Your task to perform on an android device: stop showing notifications on the lock screen Image 0: 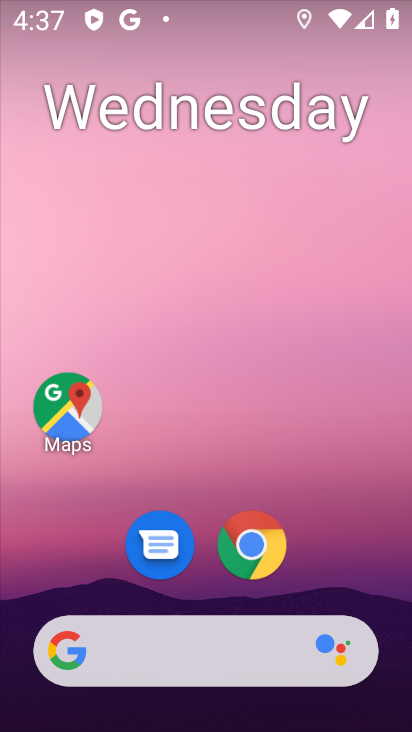
Step 0: drag from (191, 619) to (375, 24)
Your task to perform on an android device: stop showing notifications on the lock screen Image 1: 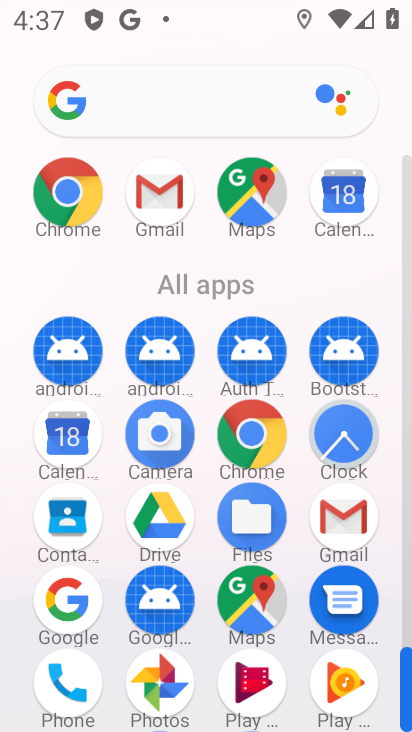
Step 1: drag from (200, 562) to (129, 44)
Your task to perform on an android device: stop showing notifications on the lock screen Image 2: 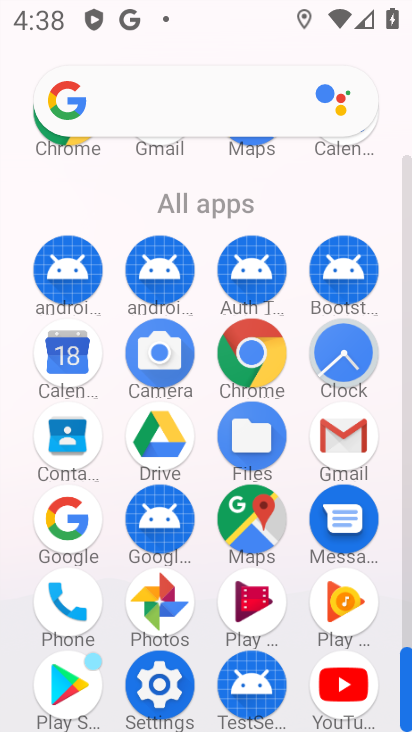
Step 2: click (164, 687)
Your task to perform on an android device: stop showing notifications on the lock screen Image 3: 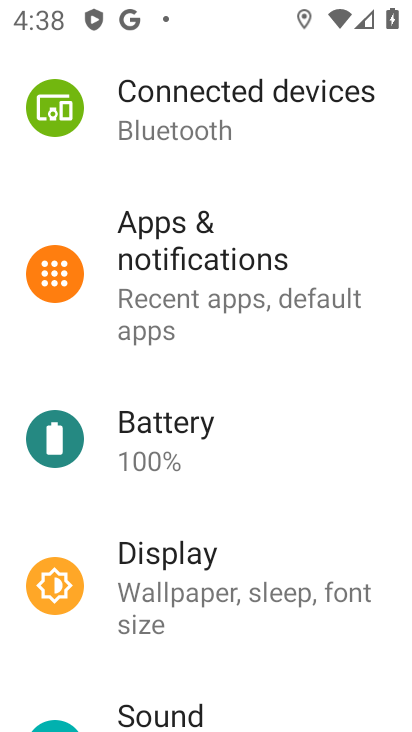
Step 3: drag from (170, 676) to (160, 531)
Your task to perform on an android device: stop showing notifications on the lock screen Image 4: 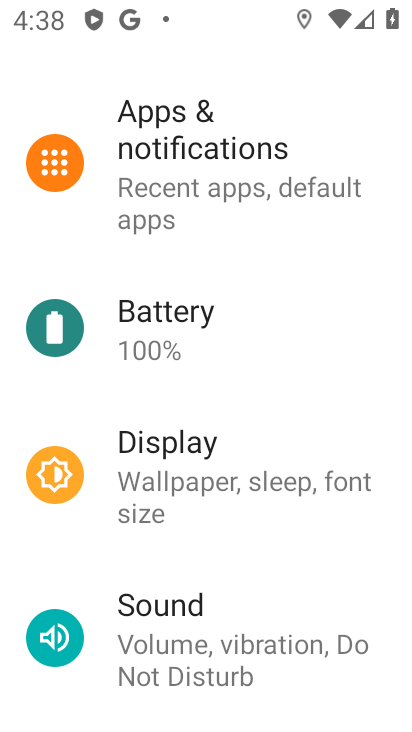
Step 4: drag from (185, 585) to (126, 214)
Your task to perform on an android device: stop showing notifications on the lock screen Image 5: 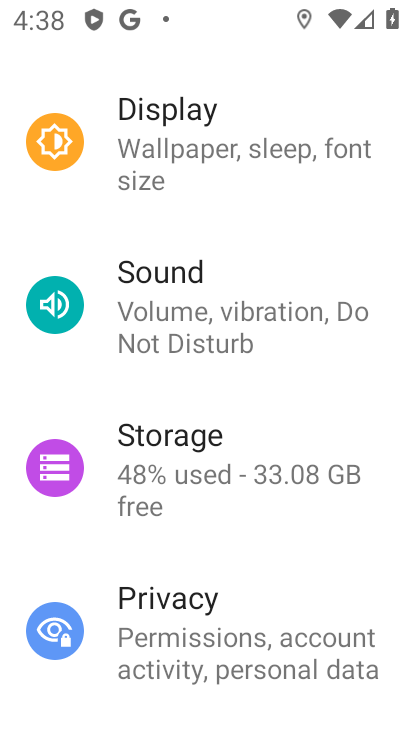
Step 5: drag from (156, 192) to (163, 731)
Your task to perform on an android device: stop showing notifications on the lock screen Image 6: 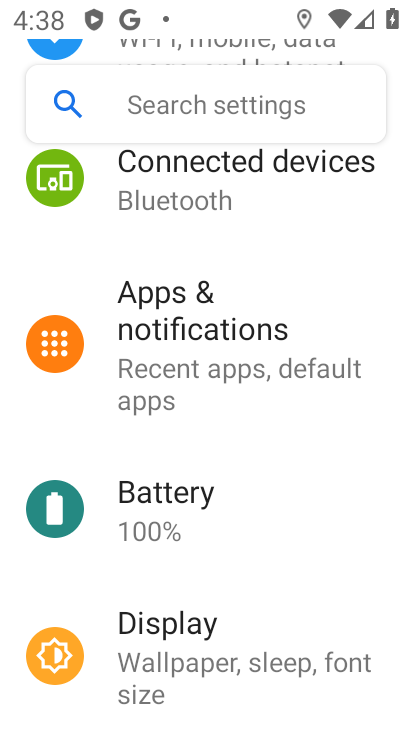
Step 6: drag from (204, 225) to (222, 639)
Your task to perform on an android device: stop showing notifications on the lock screen Image 7: 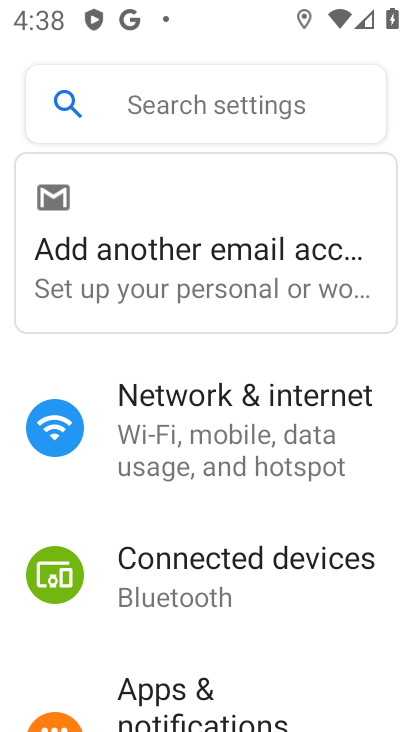
Step 7: drag from (248, 434) to (247, 76)
Your task to perform on an android device: stop showing notifications on the lock screen Image 8: 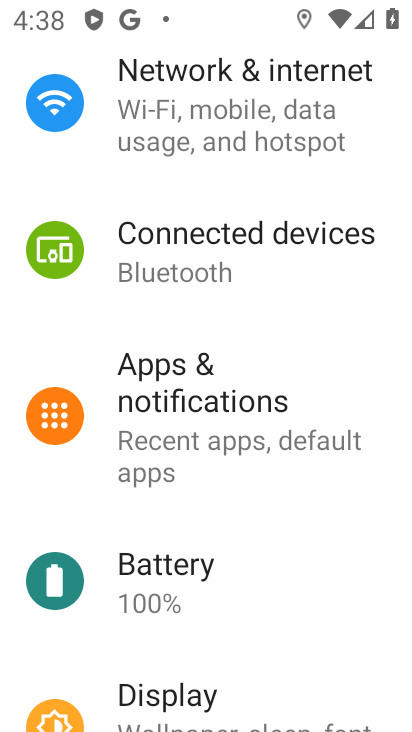
Step 8: click (175, 387)
Your task to perform on an android device: stop showing notifications on the lock screen Image 9: 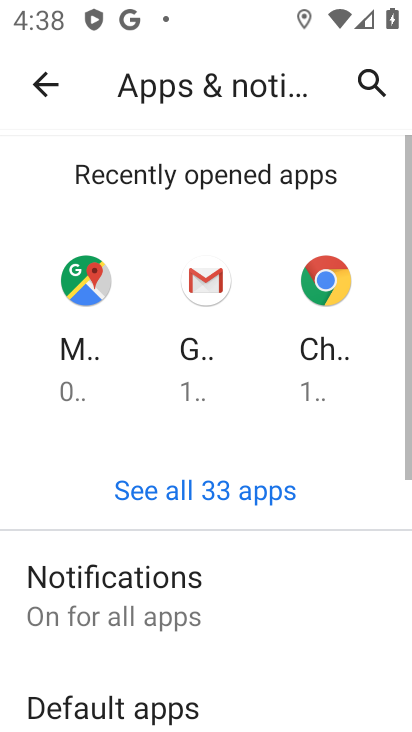
Step 9: click (173, 567)
Your task to perform on an android device: stop showing notifications on the lock screen Image 10: 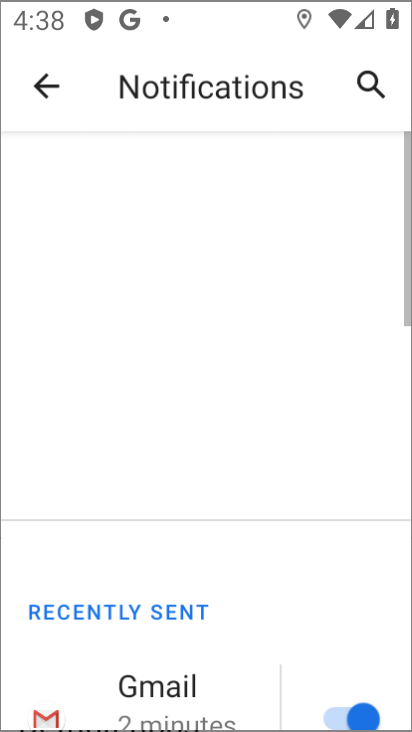
Step 10: drag from (173, 567) to (143, 76)
Your task to perform on an android device: stop showing notifications on the lock screen Image 11: 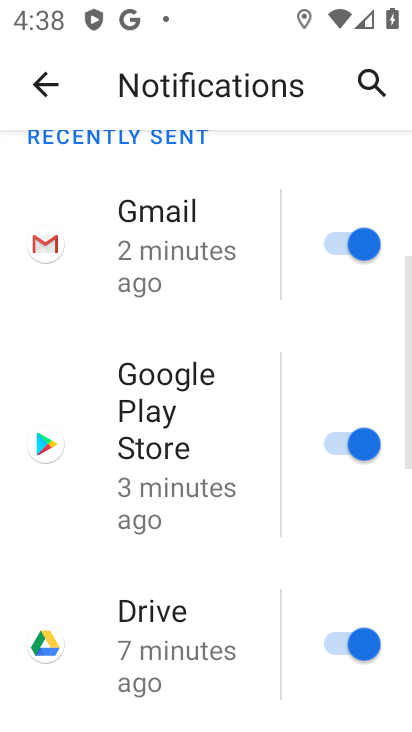
Step 11: drag from (239, 564) to (196, 92)
Your task to perform on an android device: stop showing notifications on the lock screen Image 12: 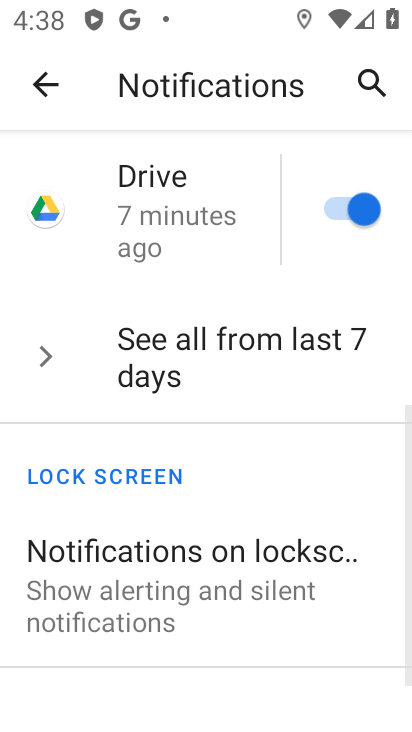
Step 12: click (240, 597)
Your task to perform on an android device: stop showing notifications on the lock screen Image 13: 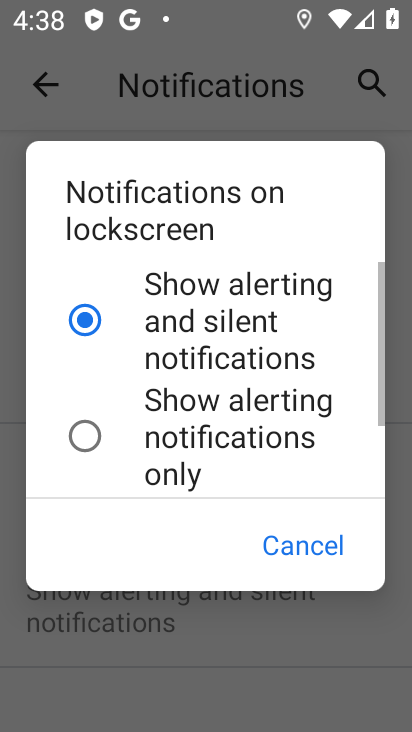
Step 13: click (175, 450)
Your task to perform on an android device: stop showing notifications on the lock screen Image 14: 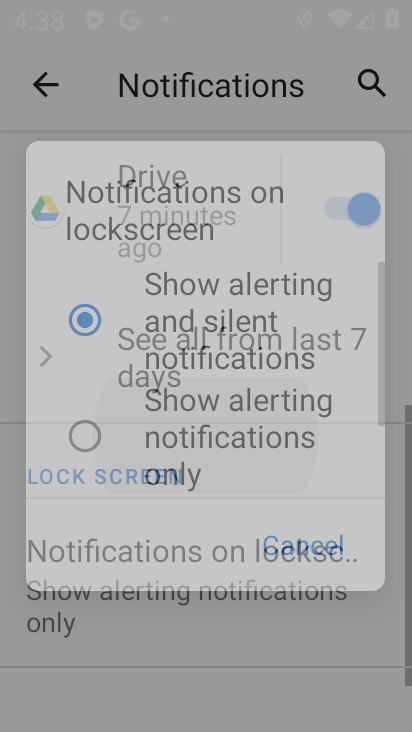
Step 14: task complete